Your task to perform on an android device: turn smart compose on in the gmail app Image 0: 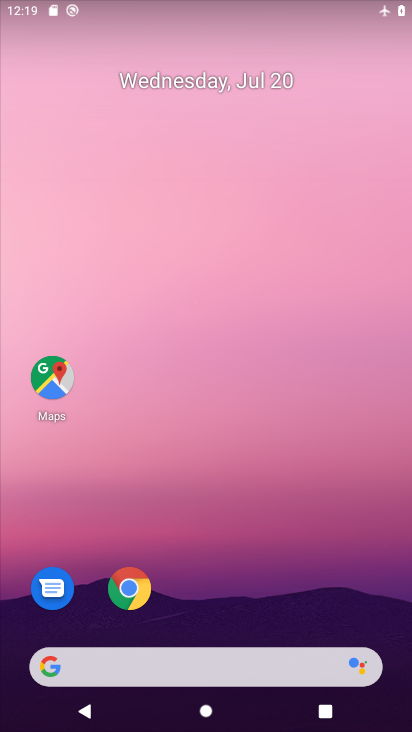
Step 0: drag from (259, 483) to (239, 206)
Your task to perform on an android device: turn smart compose on in the gmail app Image 1: 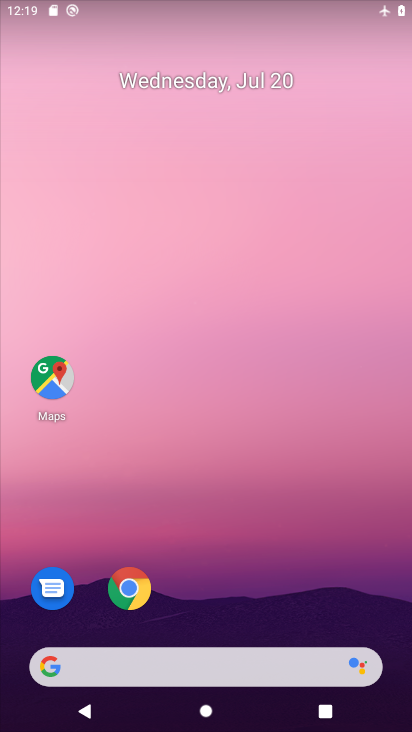
Step 1: drag from (190, 614) to (207, 201)
Your task to perform on an android device: turn smart compose on in the gmail app Image 2: 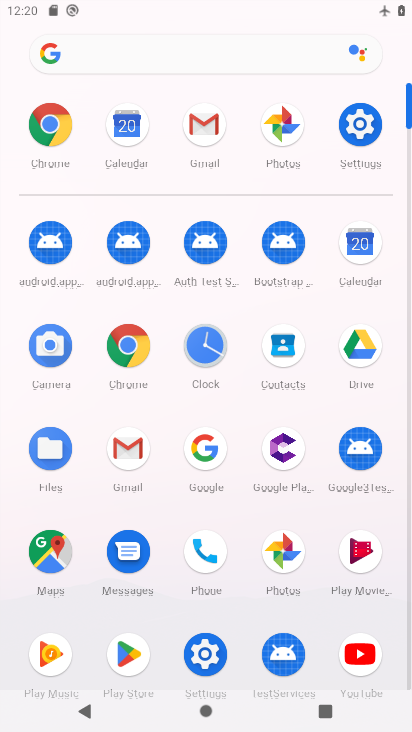
Step 2: click (128, 432)
Your task to perform on an android device: turn smart compose on in the gmail app Image 3: 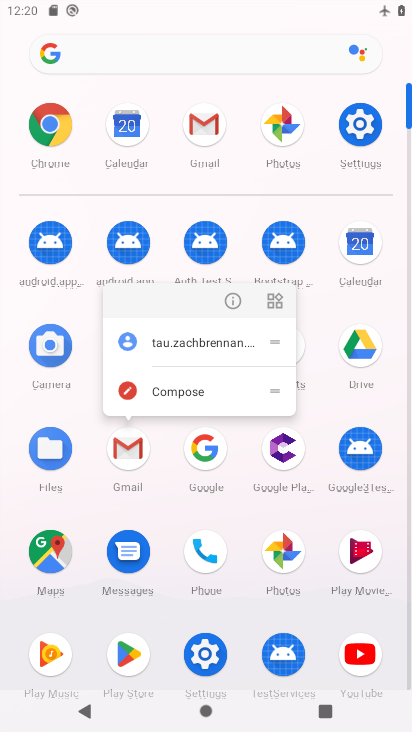
Step 3: click (125, 446)
Your task to perform on an android device: turn smart compose on in the gmail app Image 4: 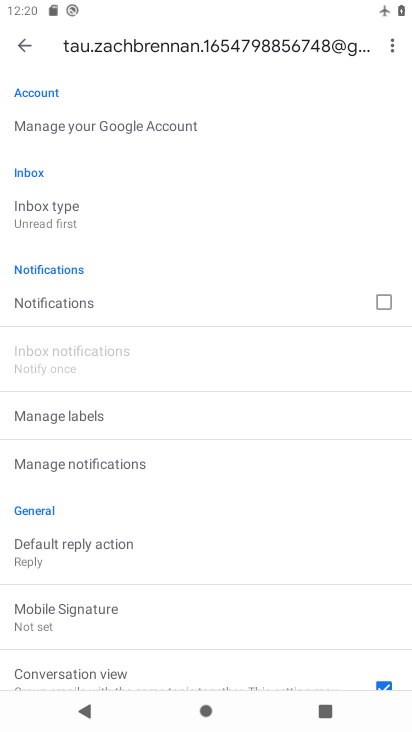
Step 4: task complete